Your task to perform on an android device: When is my next meeting? Image 0: 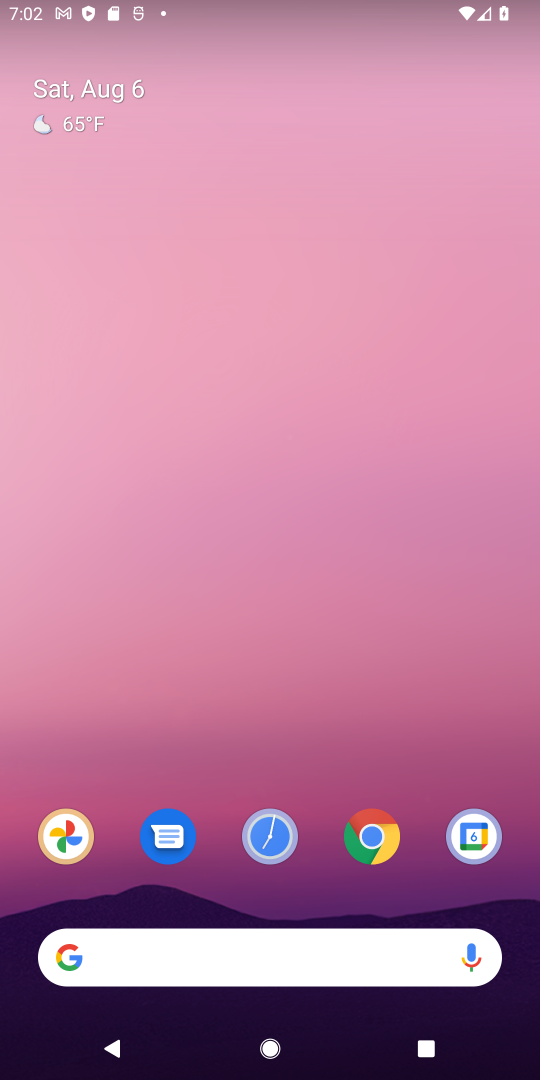
Step 0: drag from (481, 880) to (203, 66)
Your task to perform on an android device: When is my next meeting? Image 1: 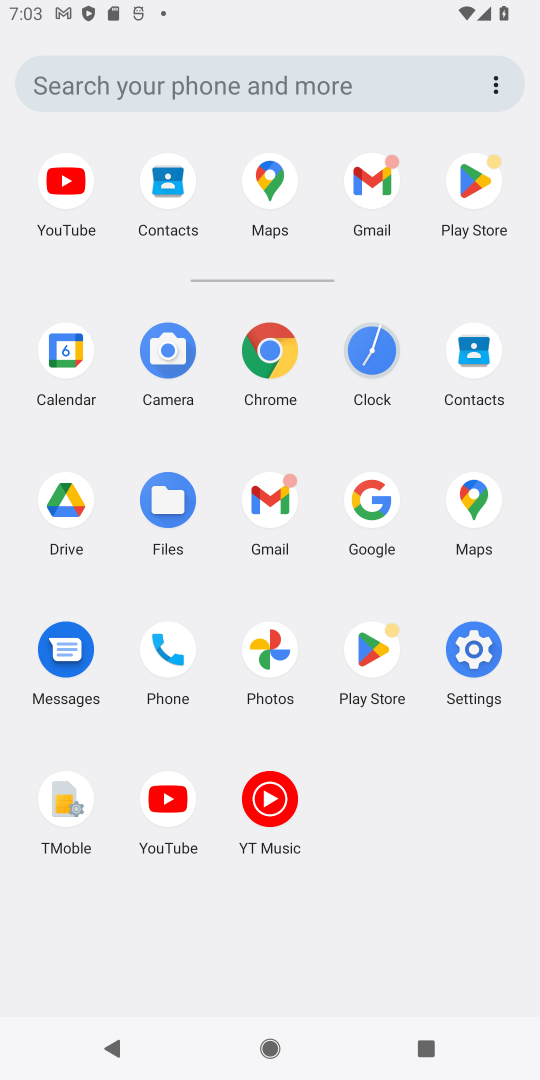
Step 1: click (59, 365)
Your task to perform on an android device: When is my next meeting? Image 2: 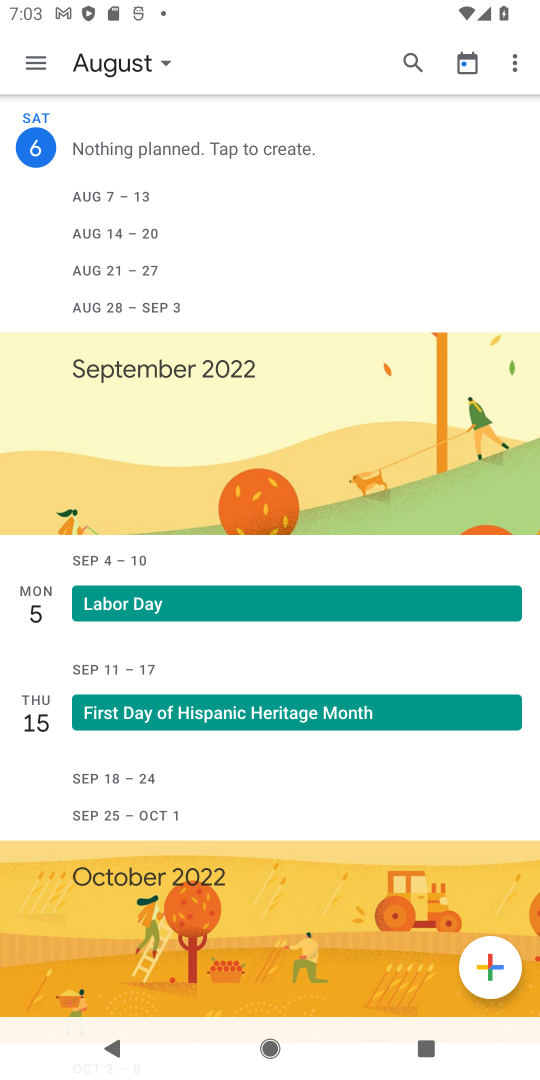
Step 2: task complete